Your task to perform on an android device: change the clock display to show seconds Image 0: 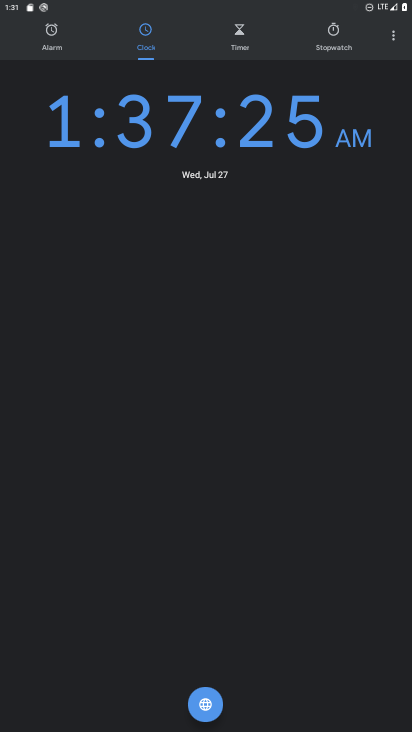
Step 0: click (183, 125)
Your task to perform on an android device: change the clock display to show seconds Image 1: 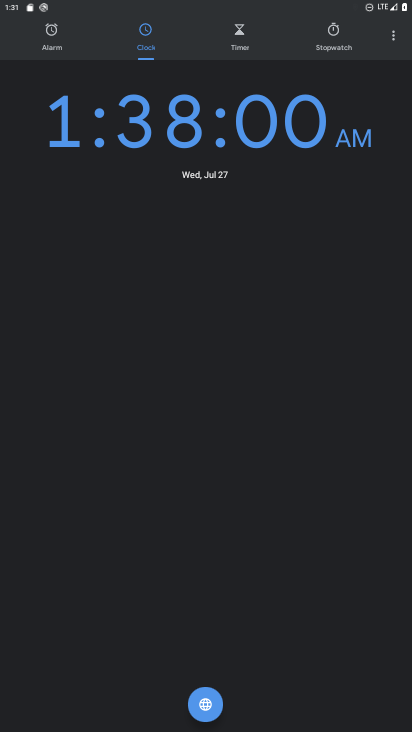
Step 1: click (306, 528)
Your task to perform on an android device: change the clock display to show seconds Image 2: 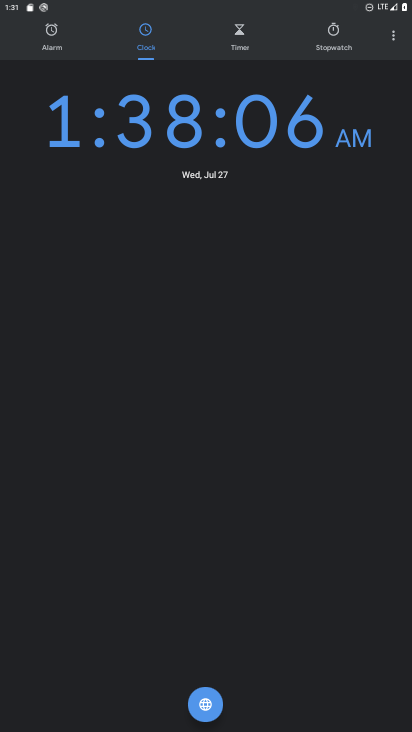
Step 2: click (342, 28)
Your task to perform on an android device: change the clock display to show seconds Image 3: 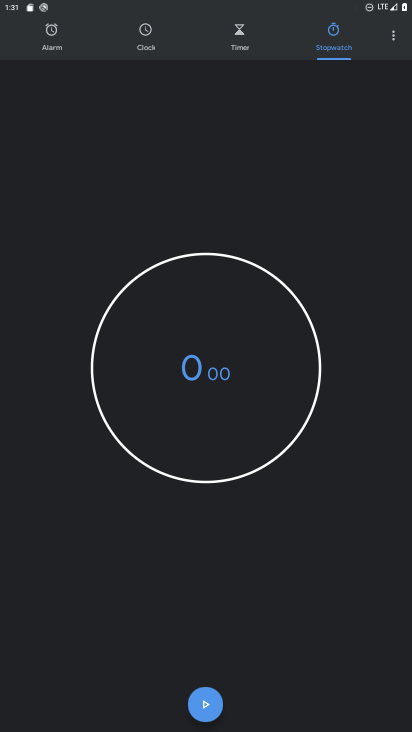
Step 3: click (128, 36)
Your task to perform on an android device: change the clock display to show seconds Image 4: 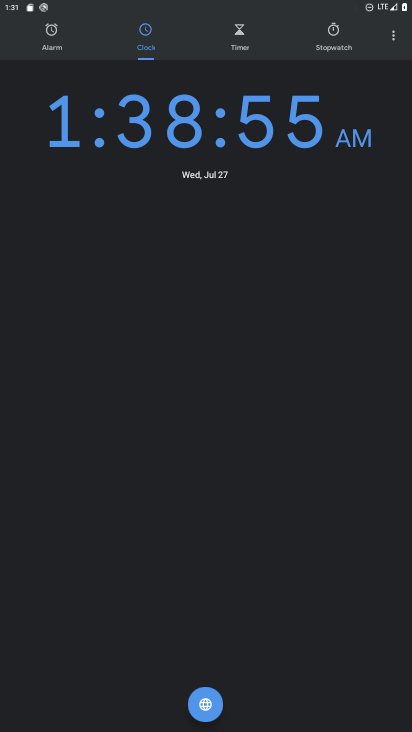
Step 4: click (251, 44)
Your task to perform on an android device: change the clock display to show seconds Image 5: 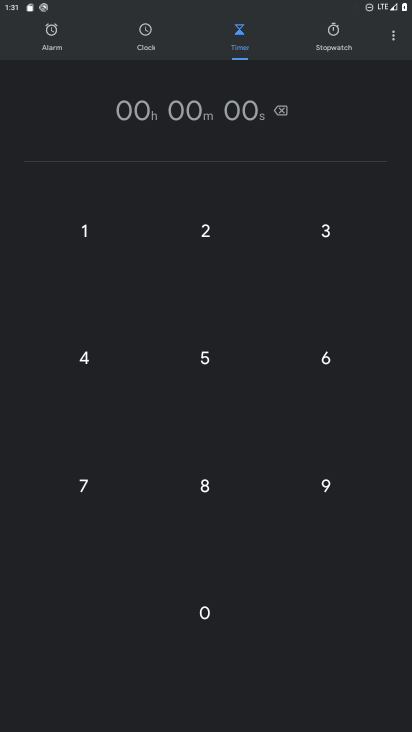
Step 5: click (345, 30)
Your task to perform on an android device: change the clock display to show seconds Image 6: 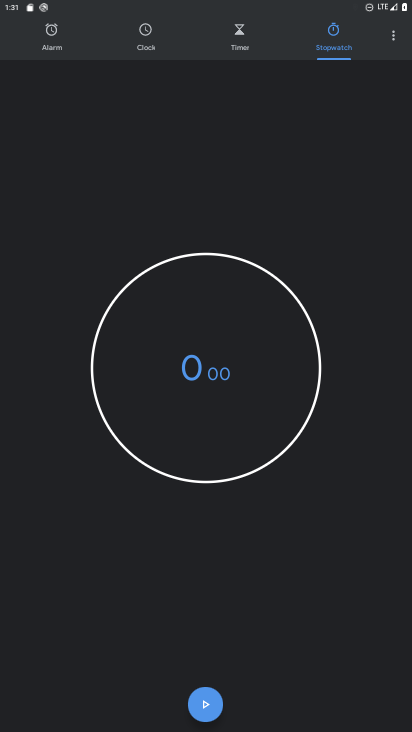
Step 6: click (145, 33)
Your task to perform on an android device: change the clock display to show seconds Image 7: 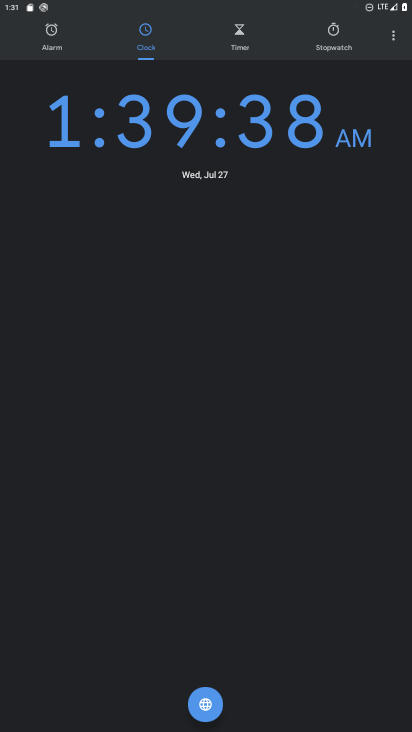
Step 7: click (243, 46)
Your task to perform on an android device: change the clock display to show seconds Image 8: 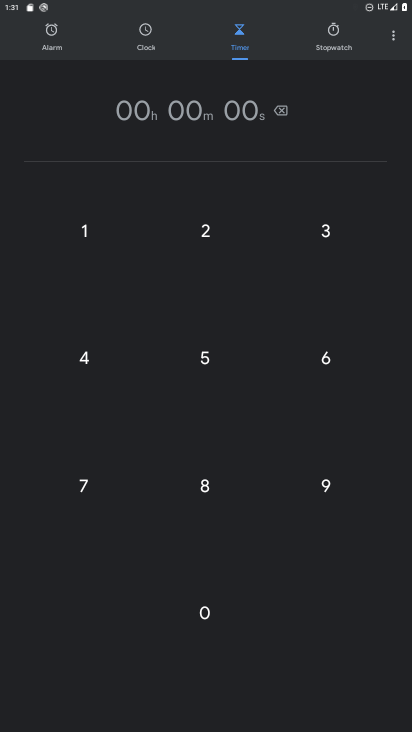
Step 8: click (259, 27)
Your task to perform on an android device: change the clock display to show seconds Image 9: 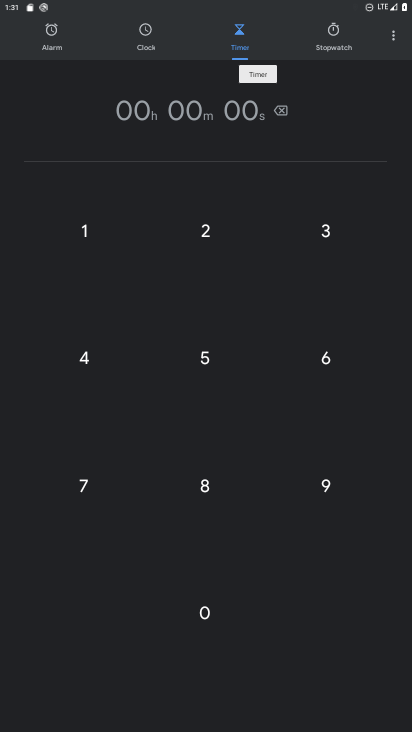
Step 9: click (156, 33)
Your task to perform on an android device: change the clock display to show seconds Image 10: 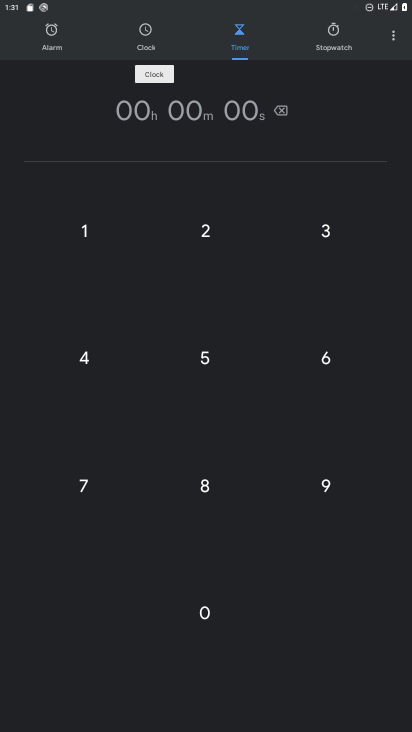
Step 10: click (137, 36)
Your task to perform on an android device: change the clock display to show seconds Image 11: 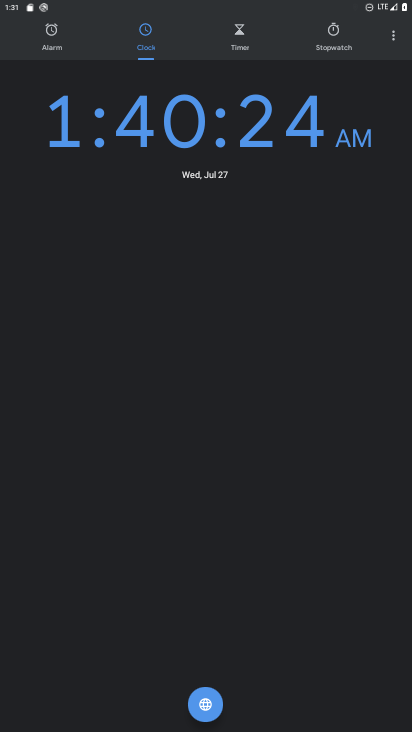
Step 11: task complete